Your task to perform on an android device: allow notifications from all sites in the chrome app Image 0: 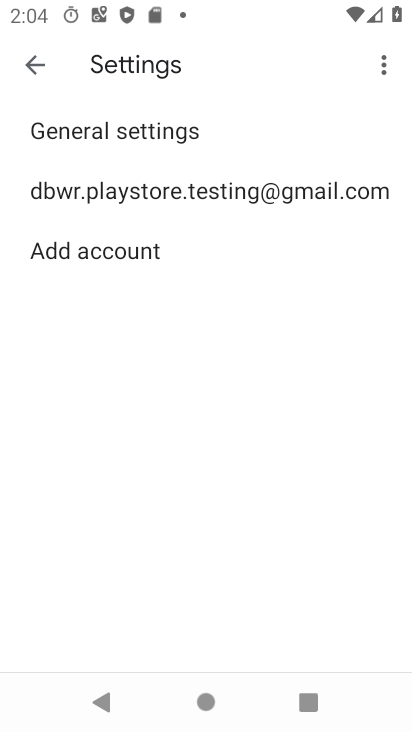
Step 0: press home button
Your task to perform on an android device: allow notifications from all sites in the chrome app Image 1: 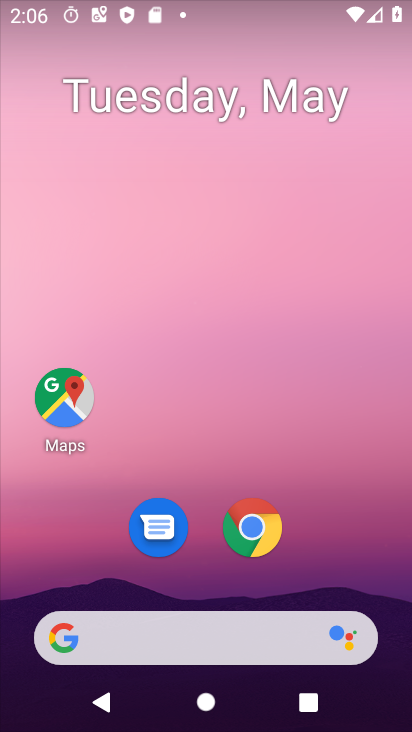
Step 1: drag from (247, 636) to (212, 226)
Your task to perform on an android device: allow notifications from all sites in the chrome app Image 2: 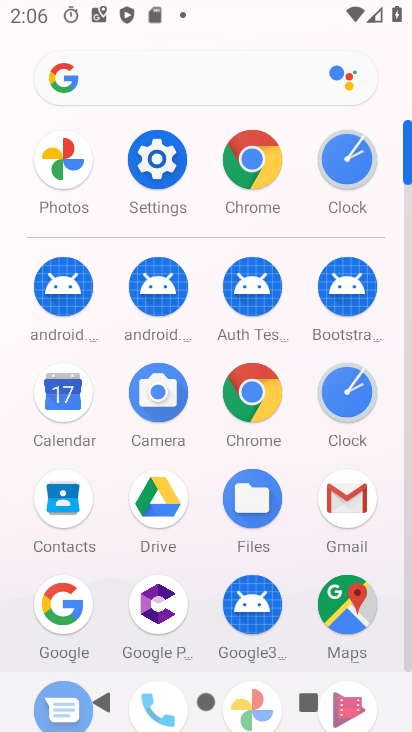
Step 2: click (245, 178)
Your task to perform on an android device: allow notifications from all sites in the chrome app Image 3: 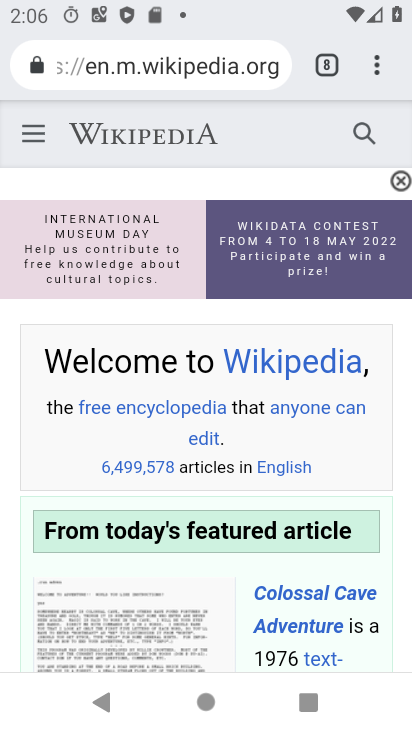
Step 3: click (368, 66)
Your task to perform on an android device: allow notifications from all sites in the chrome app Image 4: 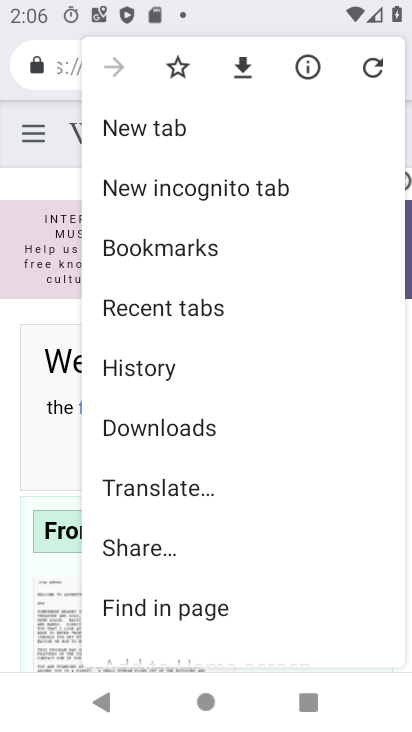
Step 4: drag from (187, 583) to (163, 419)
Your task to perform on an android device: allow notifications from all sites in the chrome app Image 5: 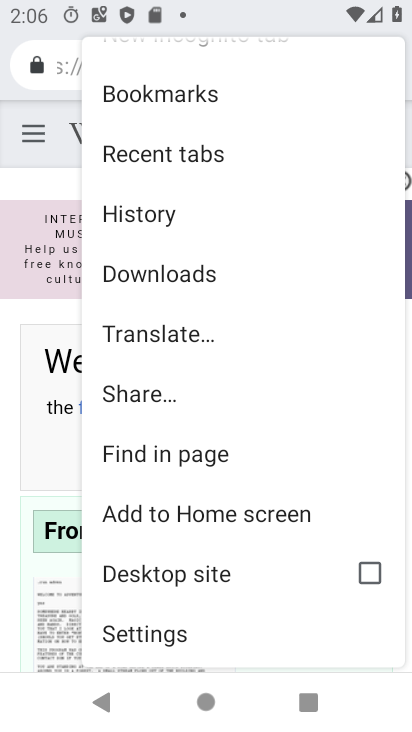
Step 5: drag from (188, 578) to (221, 498)
Your task to perform on an android device: allow notifications from all sites in the chrome app Image 6: 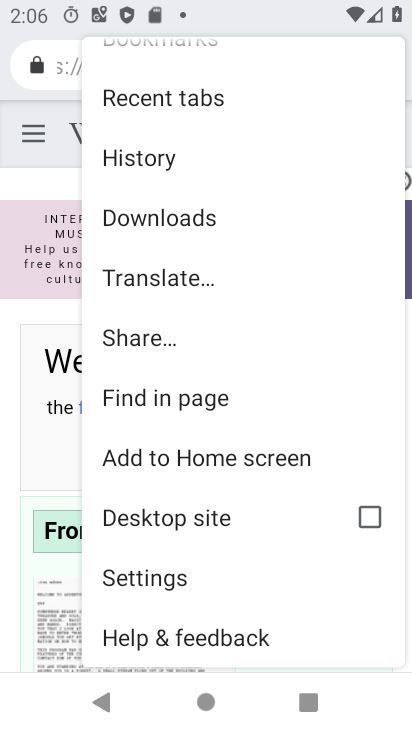
Step 6: click (175, 570)
Your task to perform on an android device: allow notifications from all sites in the chrome app Image 7: 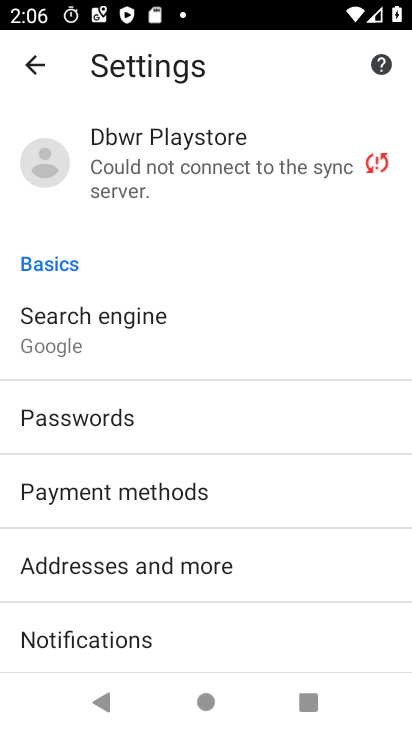
Step 7: drag from (145, 513) to (180, 200)
Your task to perform on an android device: allow notifications from all sites in the chrome app Image 8: 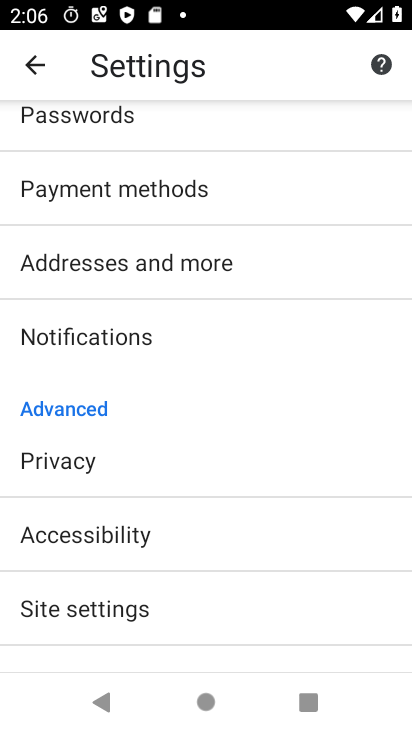
Step 8: click (121, 601)
Your task to perform on an android device: allow notifications from all sites in the chrome app Image 9: 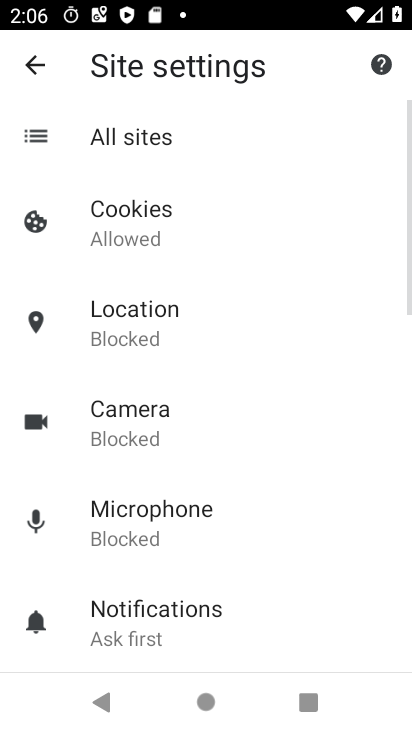
Step 9: click (152, 601)
Your task to perform on an android device: allow notifications from all sites in the chrome app Image 10: 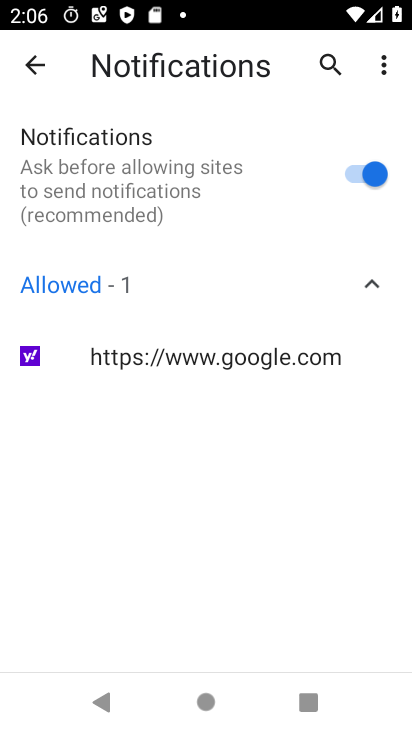
Step 10: click (331, 175)
Your task to perform on an android device: allow notifications from all sites in the chrome app Image 11: 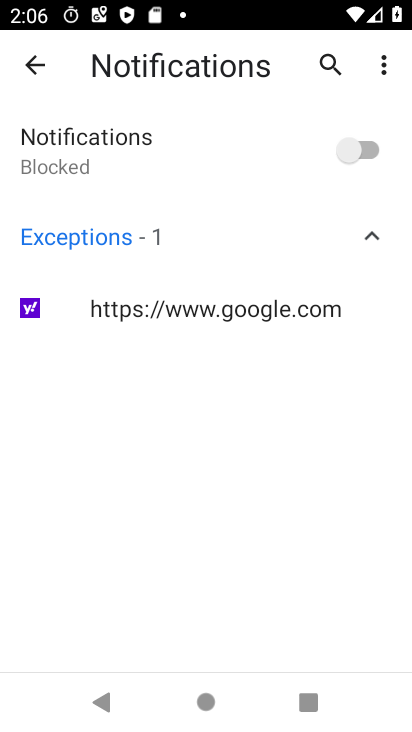
Step 11: click (333, 166)
Your task to perform on an android device: allow notifications from all sites in the chrome app Image 12: 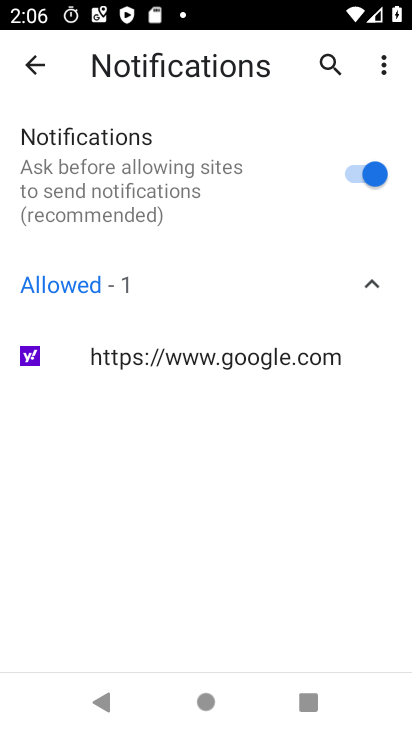
Step 12: task complete